Your task to perform on an android device: Go to location settings Image 0: 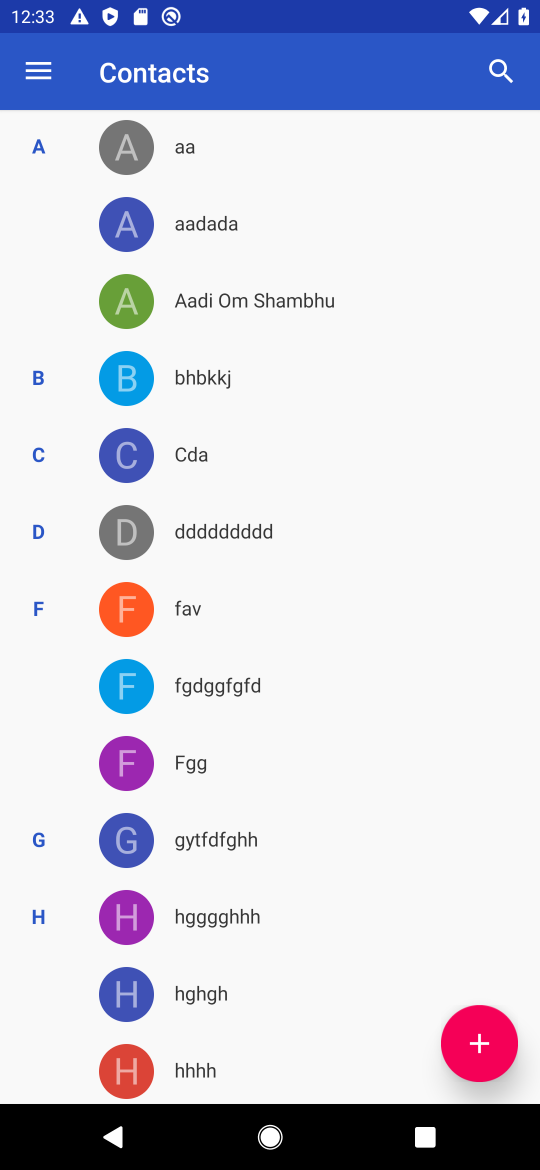
Step 0: press back button
Your task to perform on an android device: Go to location settings Image 1: 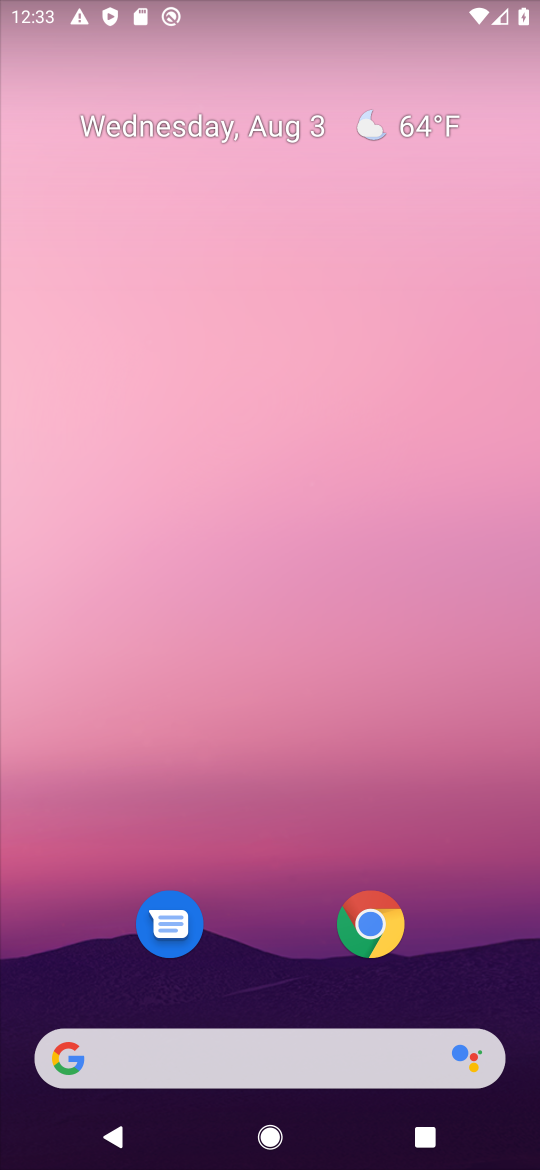
Step 1: drag from (243, 978) to (348, 6)
Your task to perform on an android device: Go to location settings Image 2: 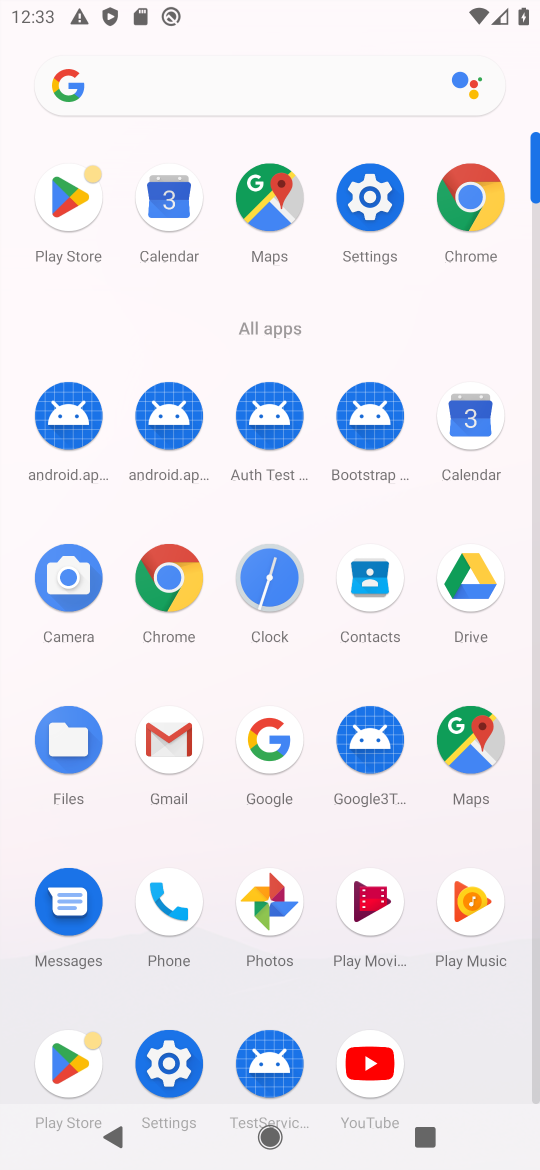
Step 2: click (359, 200)
Your task to perform on an android device: Go to location settings Image 3: 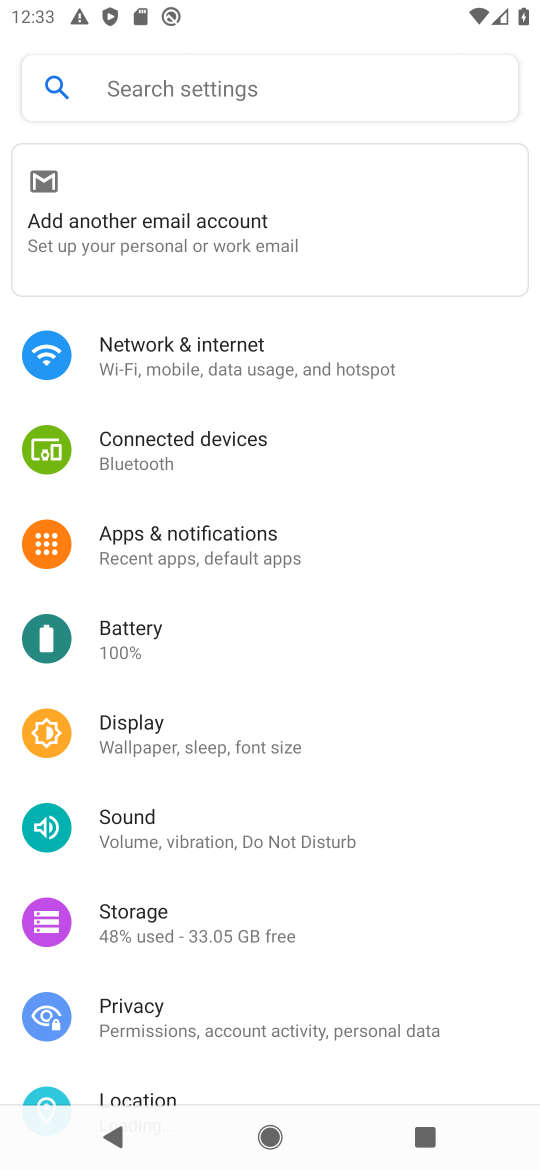
Step 3: drag from (165, 1011) to (281, 554)
Your task to perform on an android device: Go to location settings Image 4: 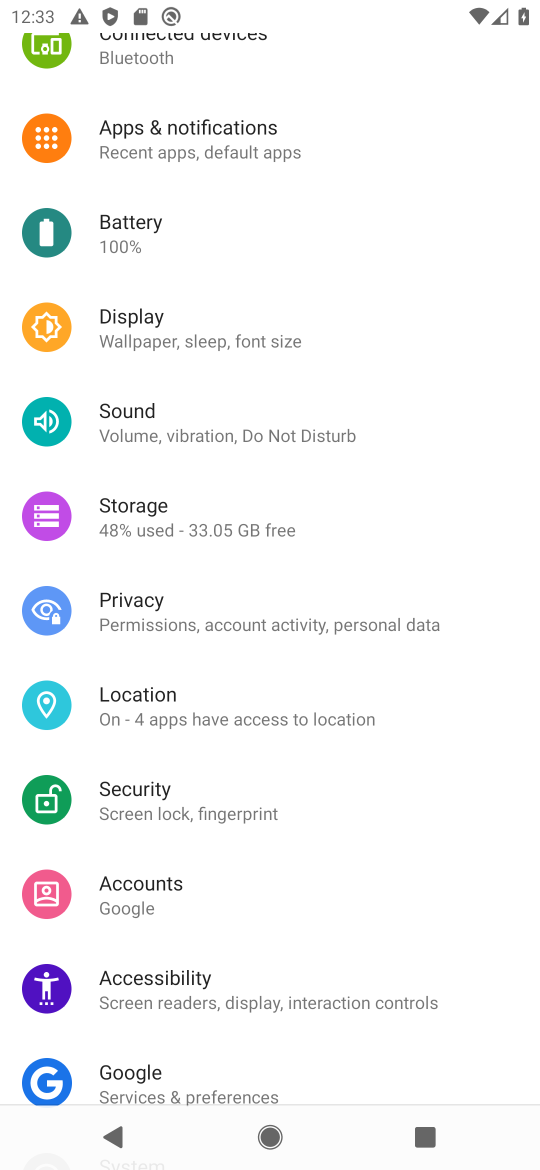
Step 4: click (166, 701)
Your task to perform on an android device: Go to location settings Image 5: 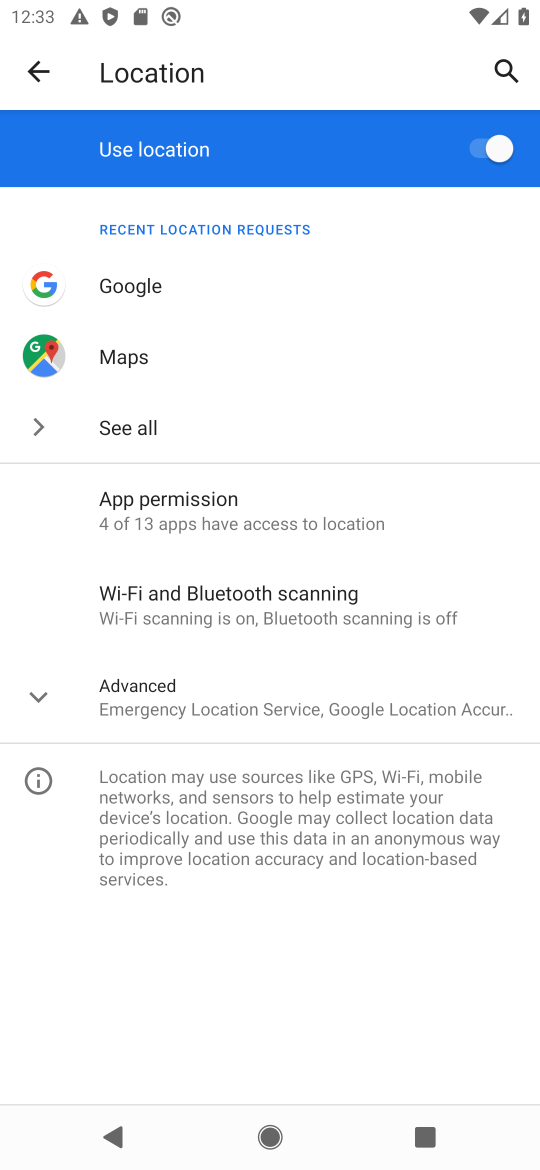
Step 5: task complete